Your task to perform on an android device: Open display settings Image 0: 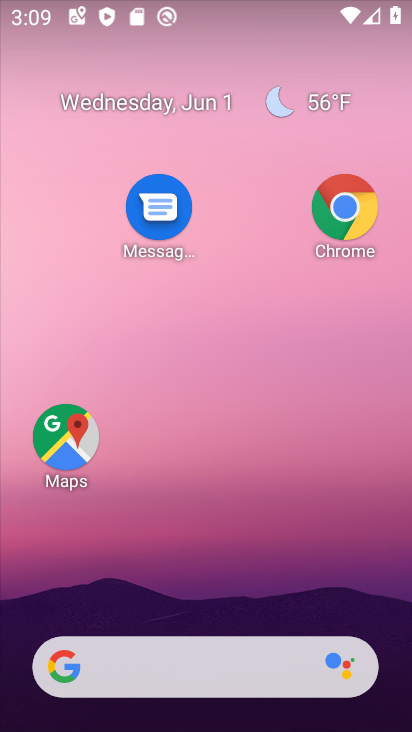
Step 0: drag from (205, 571) to (246, 145)
Your task to perform on an android device: Open display settings Image 1: 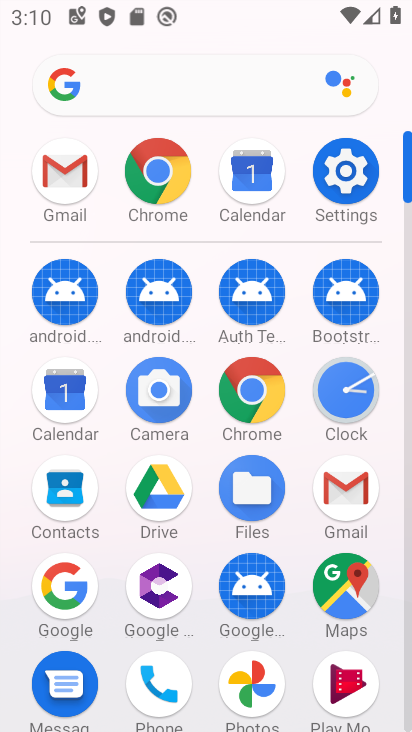
Step 1: click (333, 173)
Your task to perform on an android device: Open display settings Image 2: 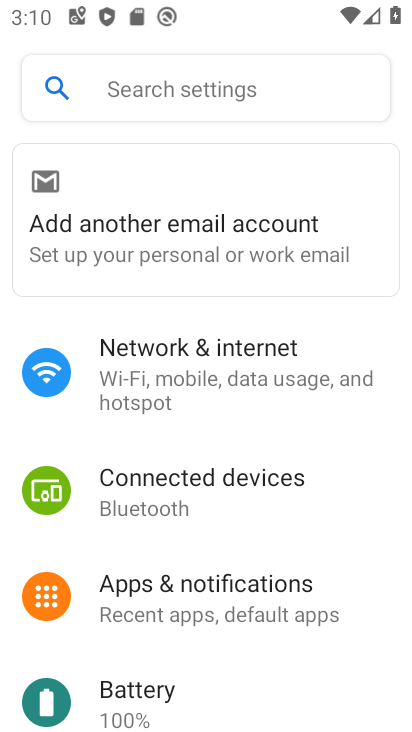
Step 2: drag from (190, 597) to (222, 176)
Your task to perform on an android device: Open display settings Image 3: 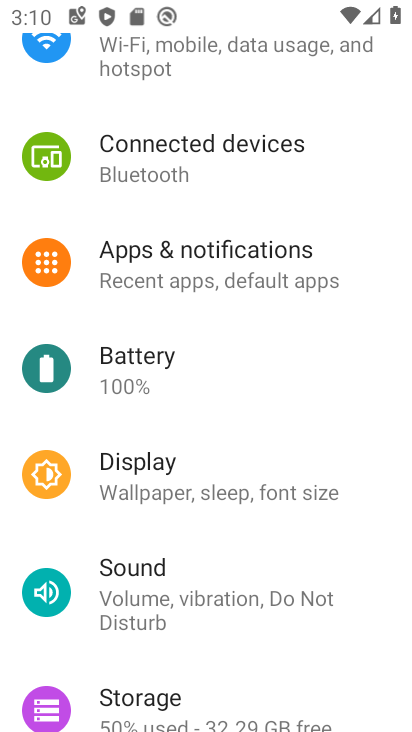
Step 3: click (197, 482)
Your task to perform on an android device: Open display settings Image 4: 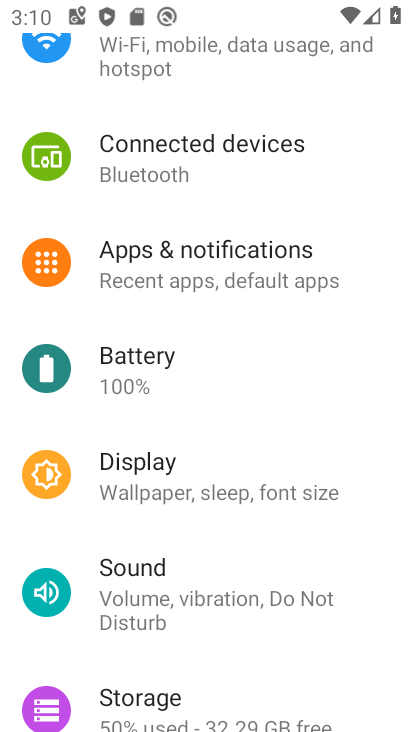
Step 4: click (197, 482)
Your task to perform on an android device: Open display settings Image 5: 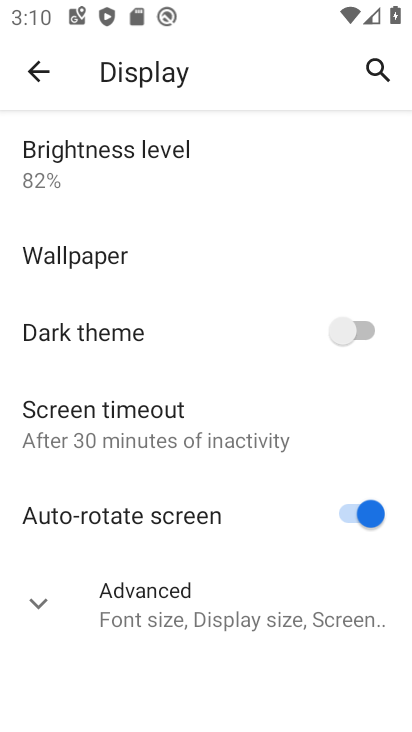
Step 5: task complete